Your task to perform on an android device: Open settings on Google Maps Image 0: 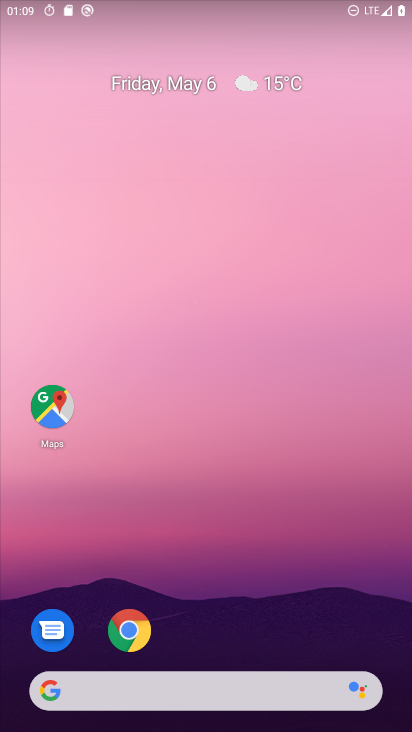
Step 0: drag from (245, 644) to (227, 158)
Your task to perform on an android device: Open settings on Google Maps Image 1: 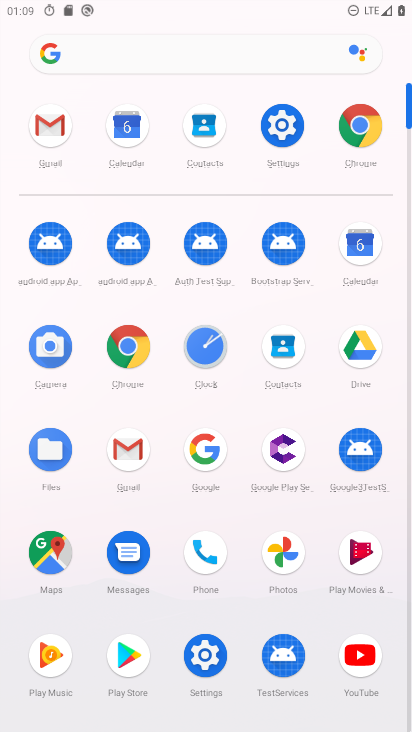
Step 1: click (62, 550)
Your task to perform on an android device: Open settings on Google Maps Image 2: 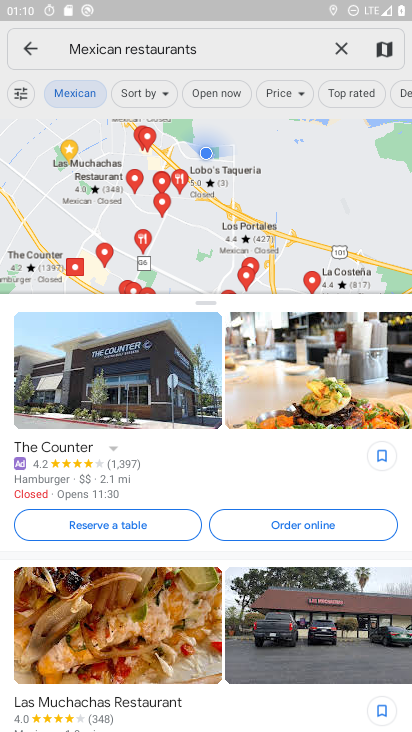
Step 2: click (21, 47)
Your task to perform on an android device: Open settings on Google Maps Image 3: 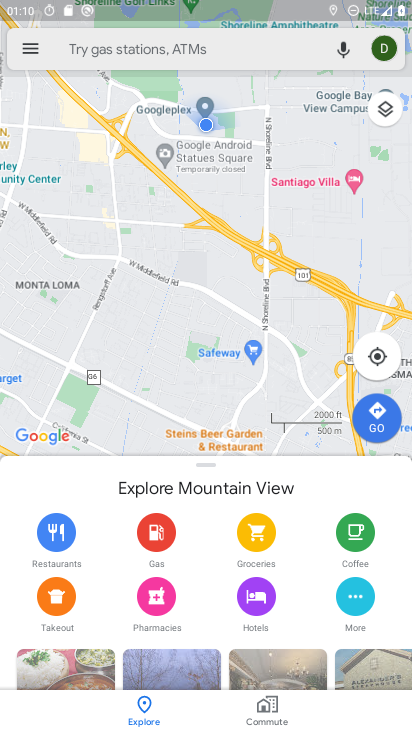
Step 3: click (25, 49)
Your task to perform on an android device: Open settings on Google Maps Image 4: 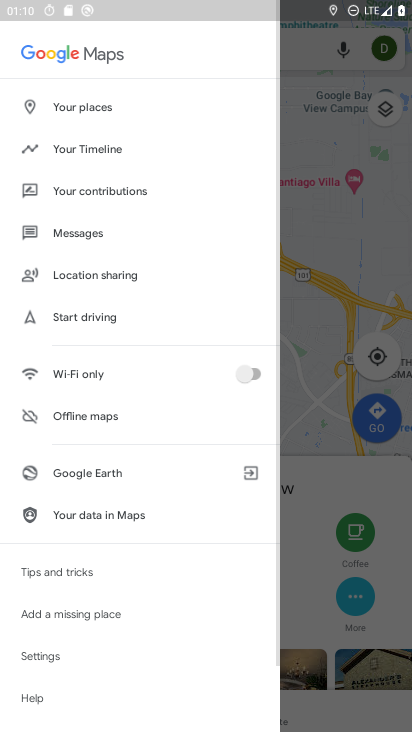
Step 4: drag from (112, 407) to (167, 158)
Your task to perform on an android device: Open settings on Google Maps Image 5: 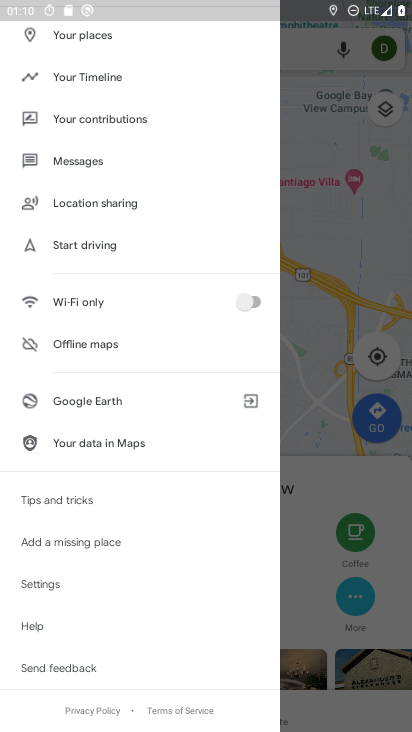
Step 5: click (38, 583)
Your task to perform on an android device: Open settings on Google Maps Image 6: 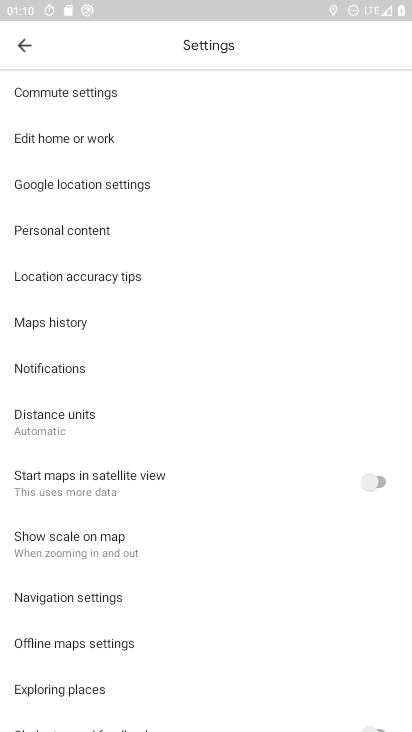
Step 6: task complete